Your task to perform on an android device: change the clock style Image 0: 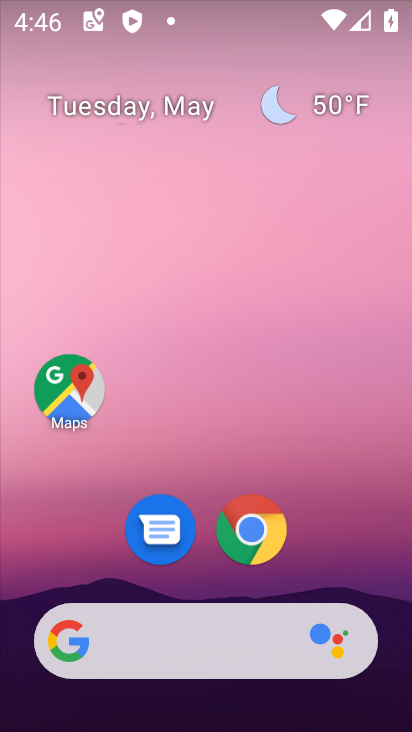
Step 0: drag from (313, 508) to (221, 45)
Your task to perform on an android device: change the clock style Image 1: 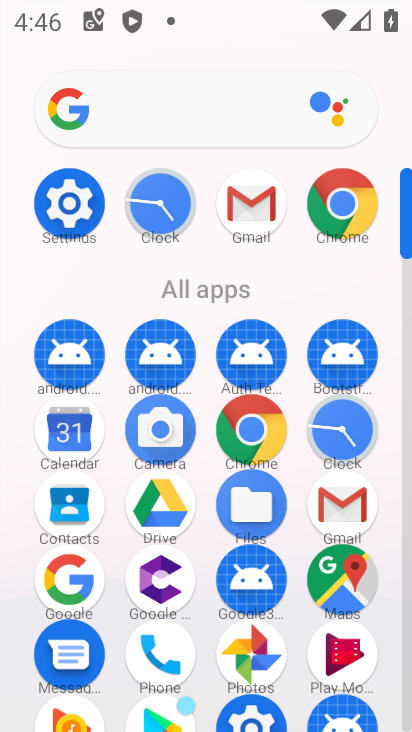
Step 1: drag from (25, 537) to (25, 219)
Your task to perform on an android device: change the clock style Image 2: 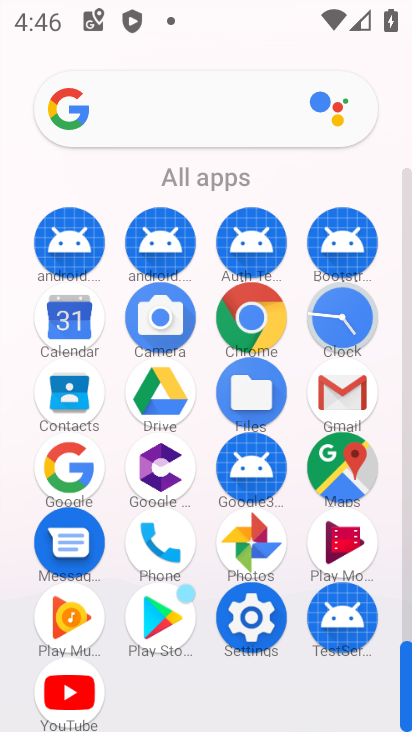
Step 2: click (341, 312)
Your task to perform on an android device: change the clock style Image 3: 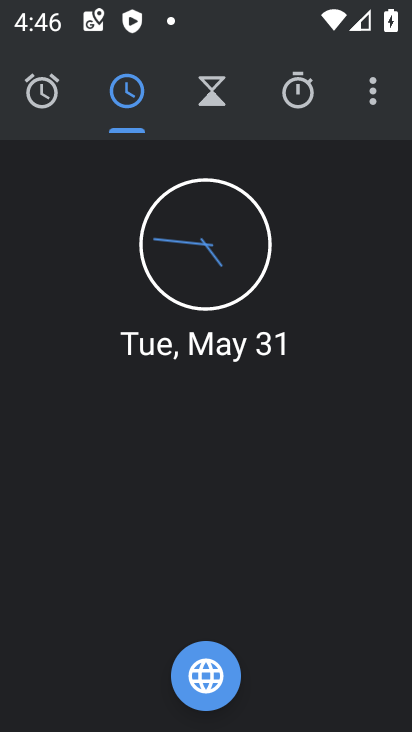
Step 3: drag from (375, 90) to (305, 164)
Your task to perform on an android device: change the clock style Image 4: 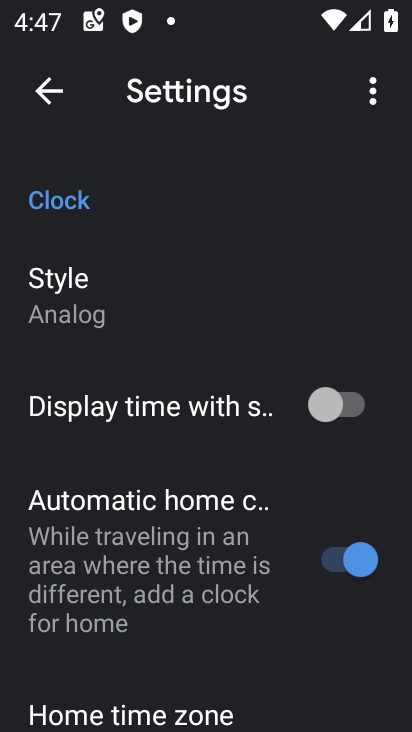
Step 4: click (124, 292)
Your task to perform on an android device: change the clock style Image 5: 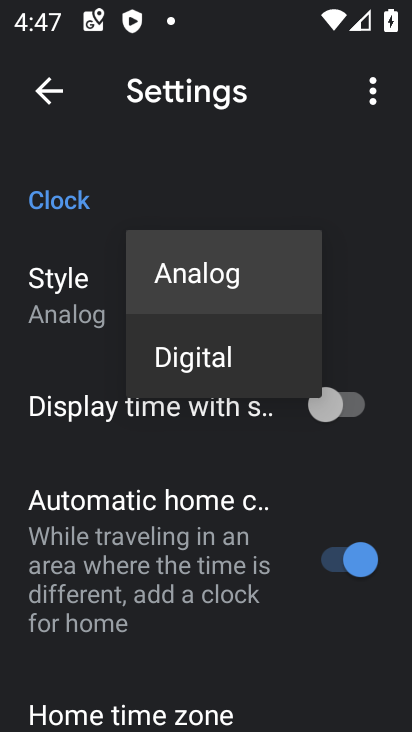
Step 5: click (219, 268)
Your task to perform on an android device: change the clock style Image 6: 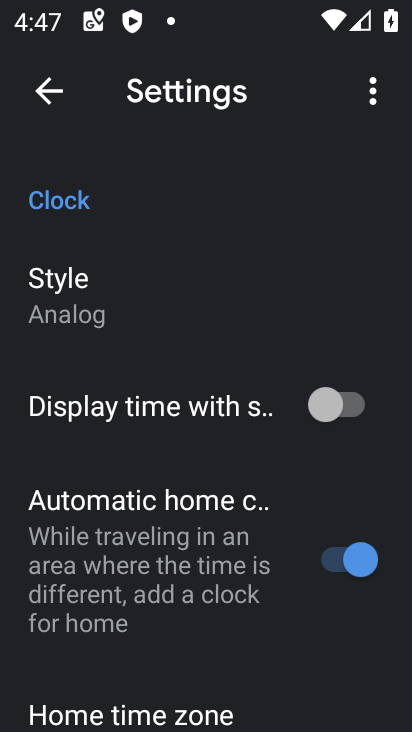
Step 6: click (146, 287)
Your task to perform on an android device: change the clock style Image 7: 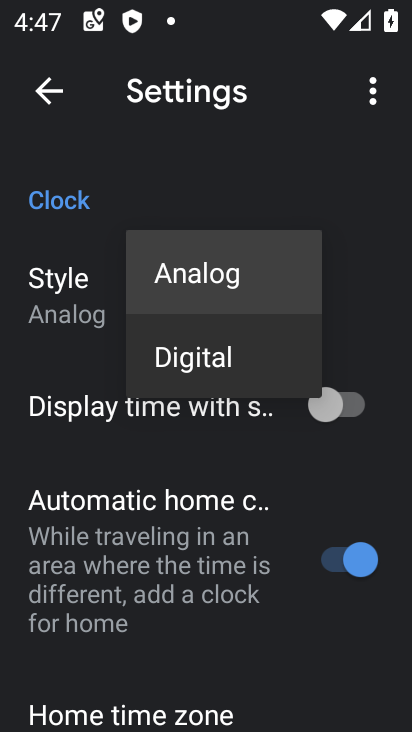
Step 7: click (196, 350)
Your task to perform on an android device: change the clock style Image 8: 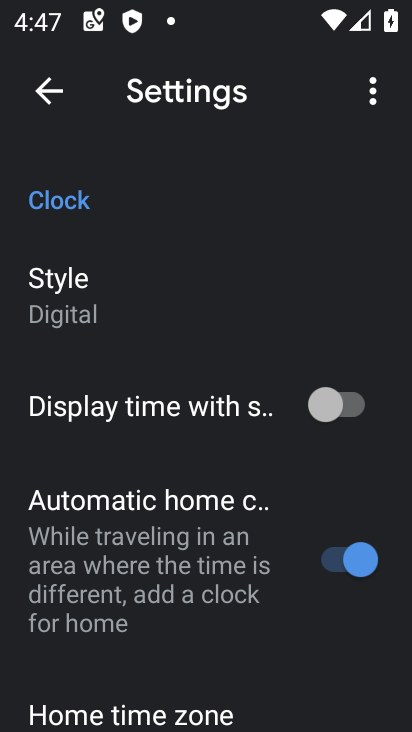
Step 8: task complete